Your task to perform on an android device: Open Maps and search for coffee Image 0: 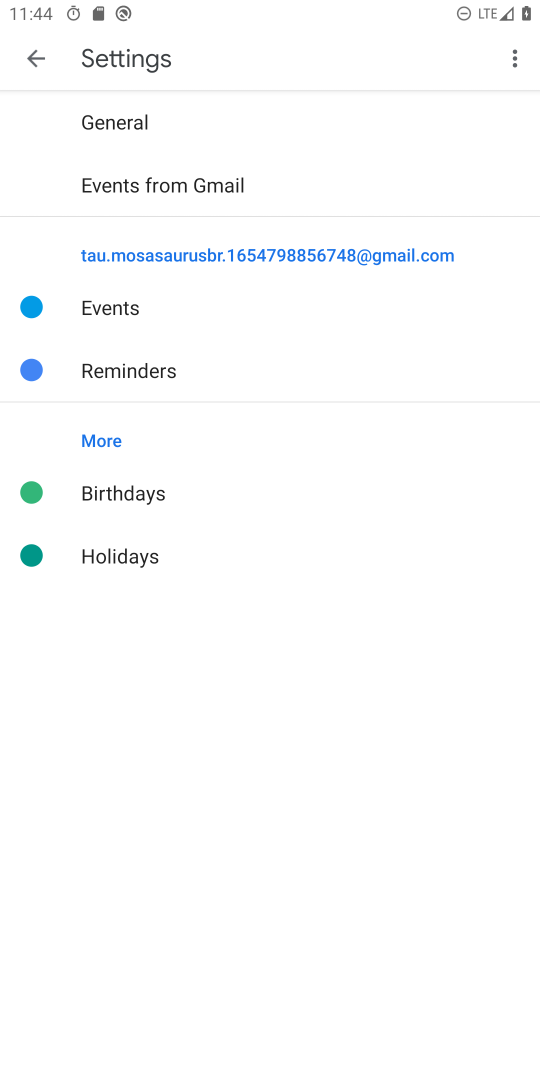
Step 0: press home button
Your task to perform on an android device: Open Maps and search for coffee Image 1: 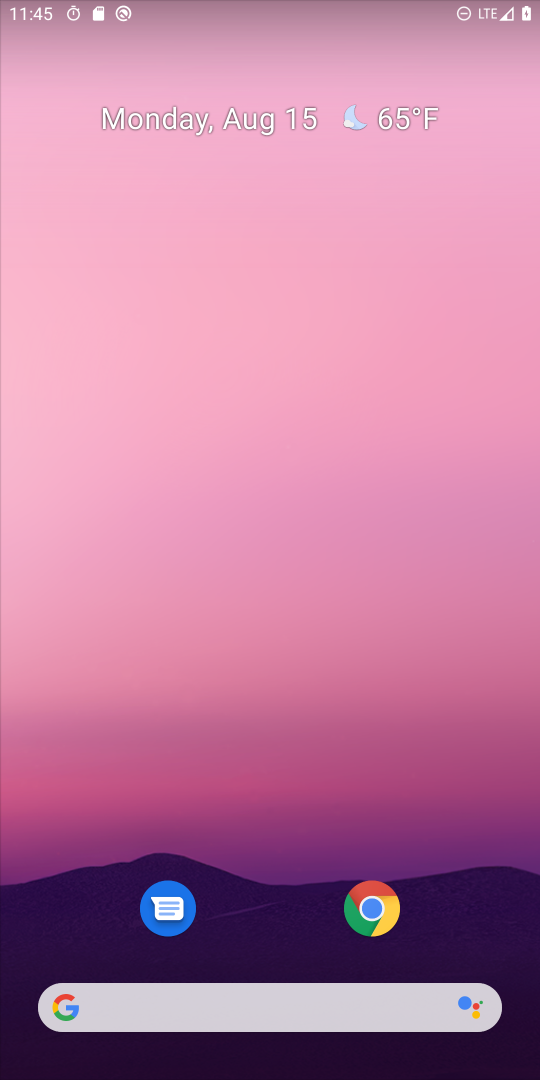
Step 1: drag from (249, 916) to (297, 160)
Your task to perform on an android device: Open Maps and search for coffee Image 2: 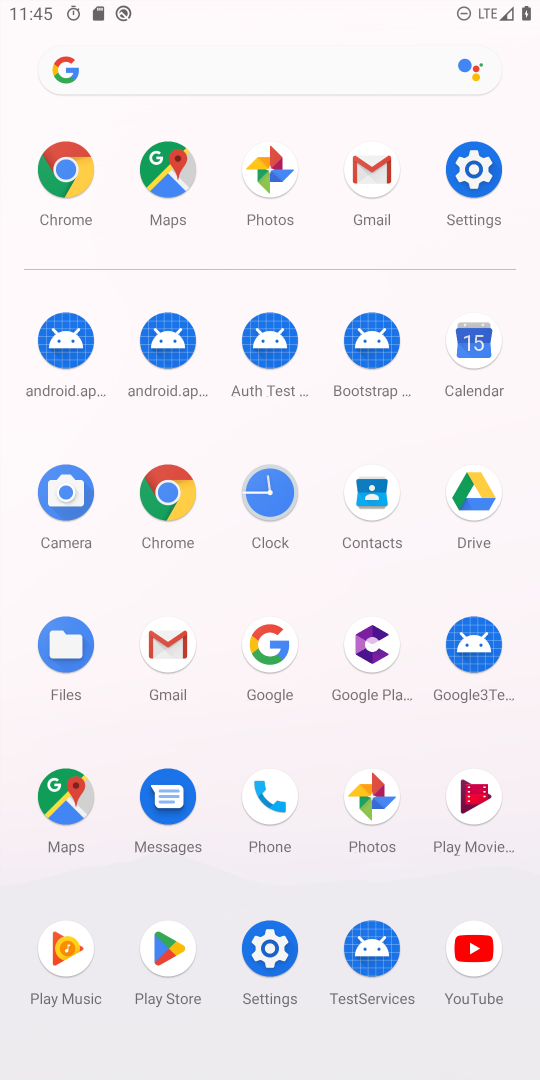
Step 2: click (161, 164)
Your task to perform on an android device: Open Maps and search for coffee Image 3: 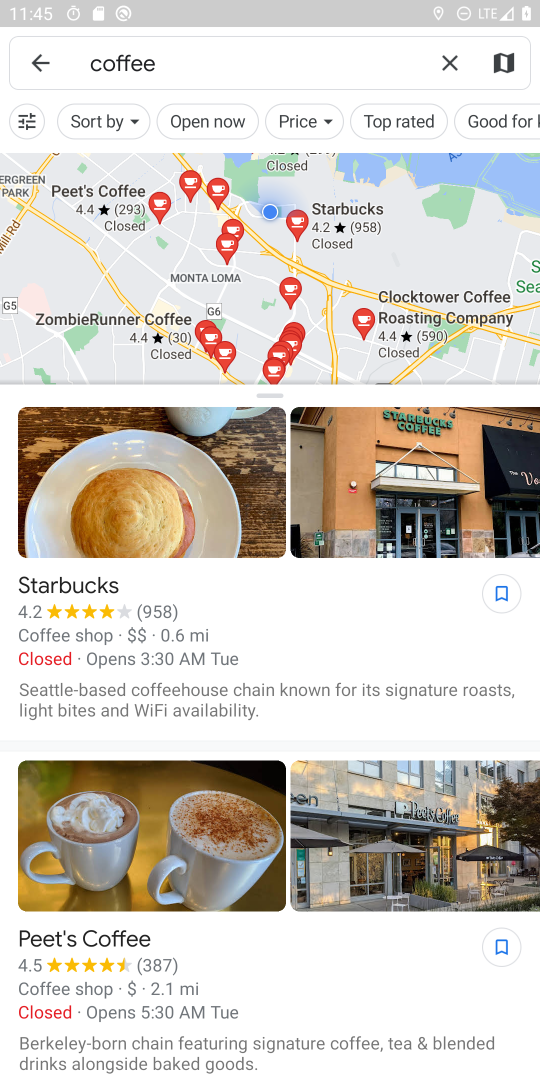
Step 3: task complete